Your task to perform on an android device: turn off airplane mode Image 0: 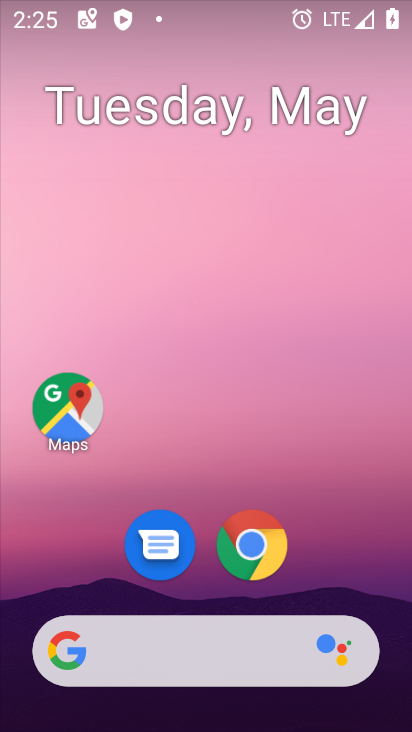
Step 0: drag from (338, 561) to (209, 14)
Your task to perform on an android device: turn off airplane mode Image 1: 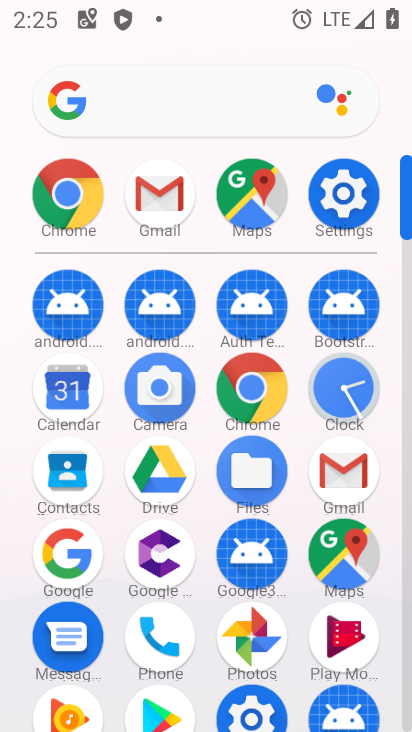
Step 1: click (340, 193)
Your task to perform on an android device: turn off airplane mode Image 2: 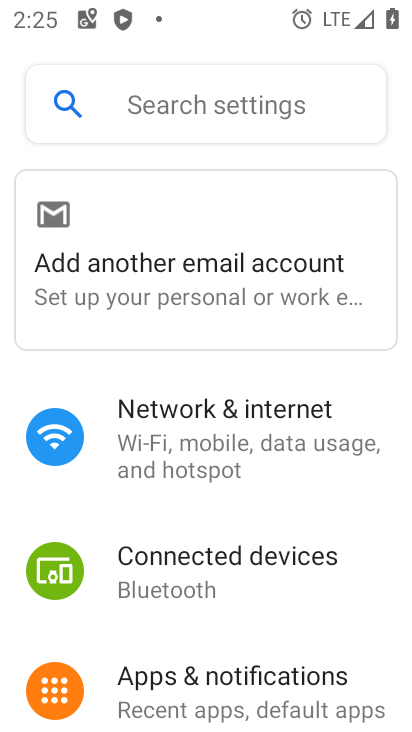
Step 2: drag from (265, 630) to (304, 267)
Your task to perform on an android device: turn off airplane mode Image 3: 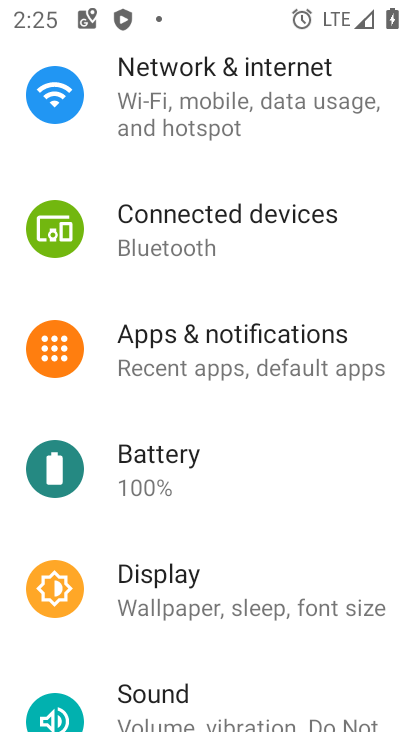
Step 3: click (230, 99)
Your task to perform on an android device: turn off airplane mode Image 4: 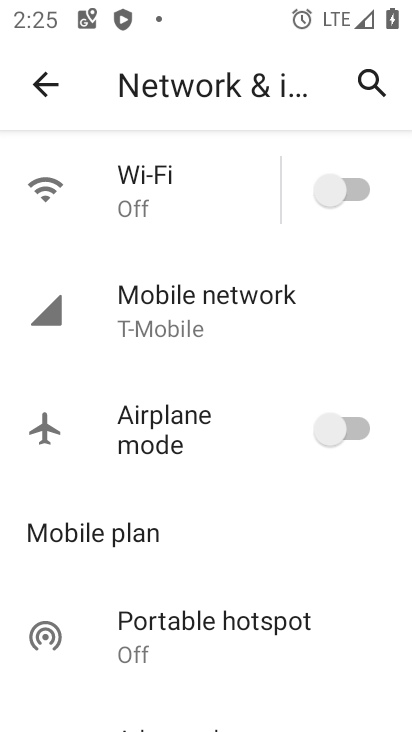
Step 4: drag from (232, 598) to (207, 245)
Your task to perform on an android device: turn off airplane mode Image 5: 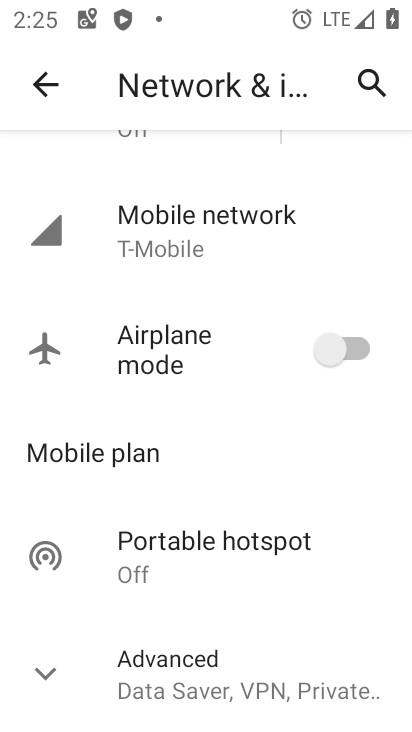
Step 5: click (61, 660)
Your task to perform on an android device: turn off airplane mode Image 6: 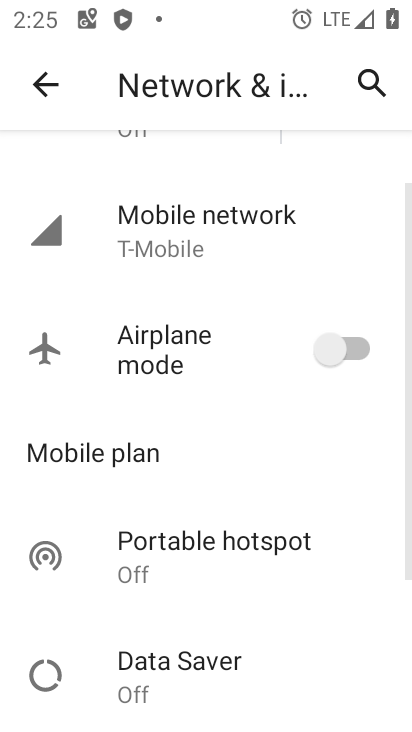
Step 6: drag from (238, 561) to (237, 215)
Your task to perform on an android device: turn off airplane mode Image 7: 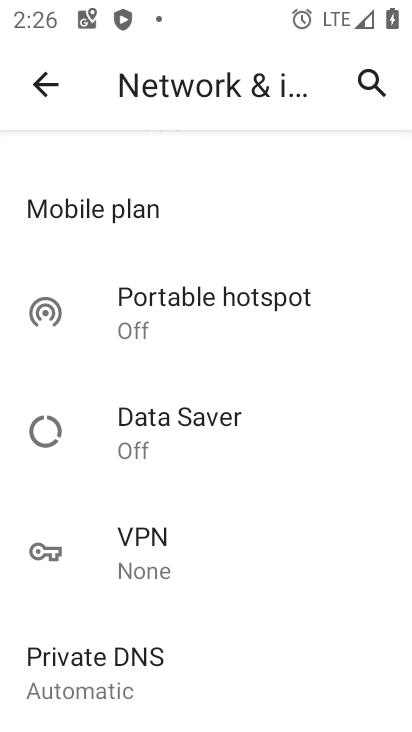
Step 7: drag from (275, 538) to (278, 166)
Your task to perform on an android device: turn off airplane mode Image 8: 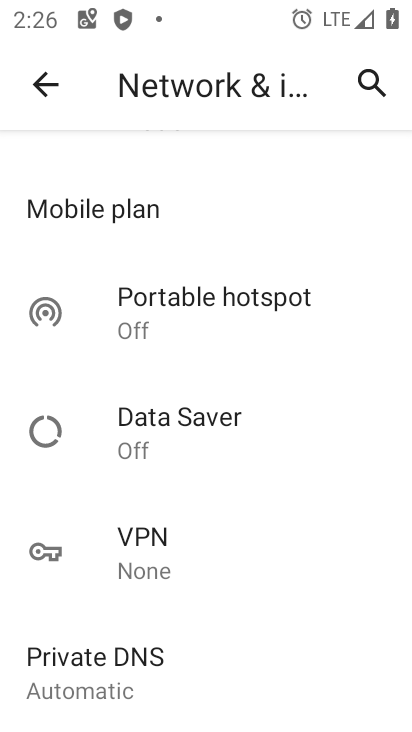
Step 8: click (29, 65)
Your task to perform on an android device: turn off airplane mode Image 9: 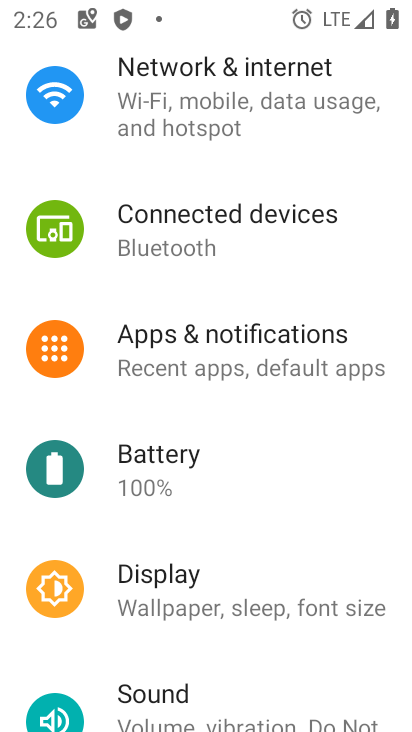
Step 9: drag from (307, 170) to (334, 617)
Your task to perform on an android device: turn off airplane mode Image 10: 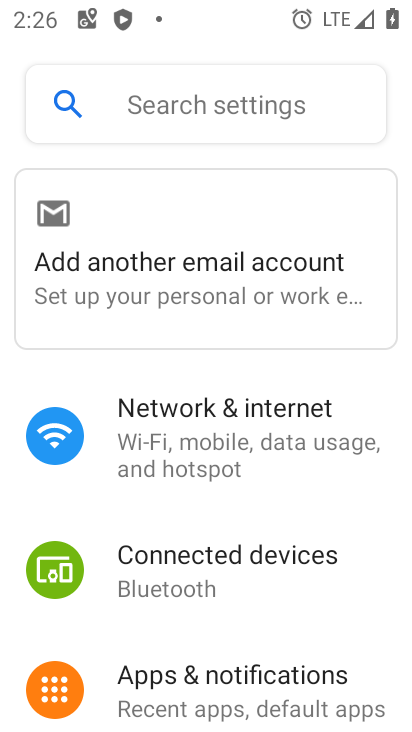
Step 10: click (274, 412)
Your task to perform on an android device: turn off airplane mode Image 11: 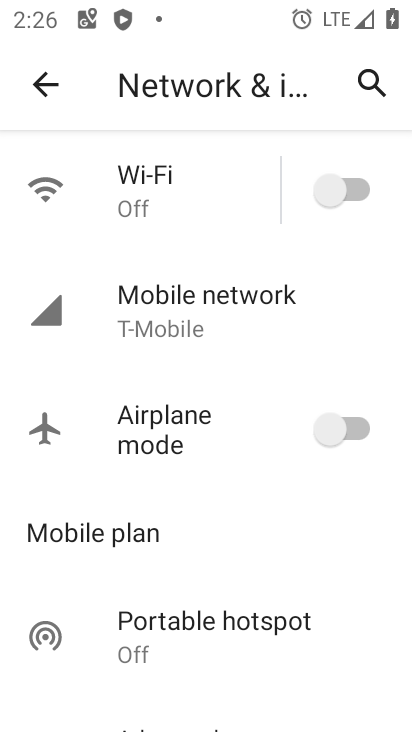
Step 11: task complete